Your task to perform on an android device: set the timer Image 0: 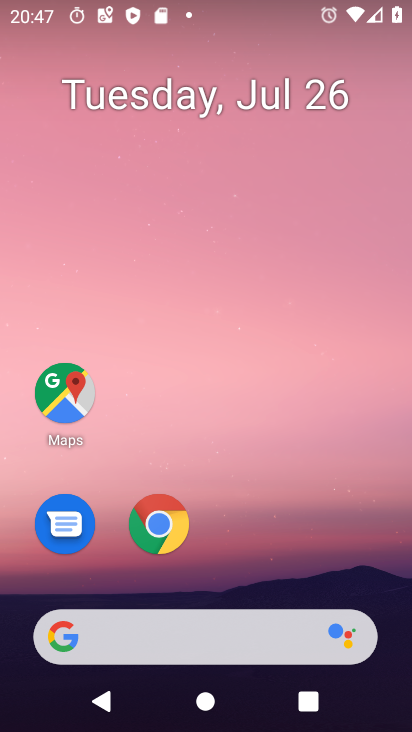
Step 0: drag from (272, 553) to (274, 34)
Your task to perform on an android device: set the timer Image 1: 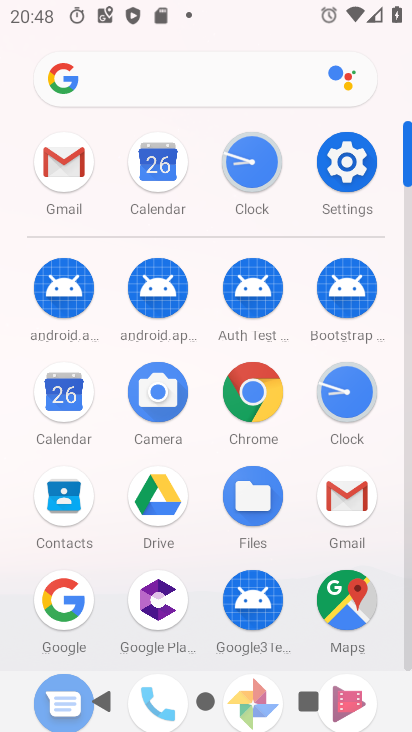
Step 1: click (270, 157)
Your task to perform on an android device: set the timer Image 2: 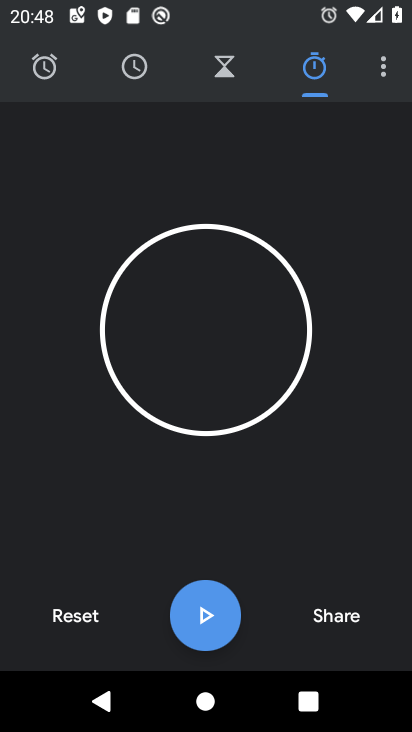
Step 2: click (219, 66)
Your task to perform on an android device: set the timer Image 3: 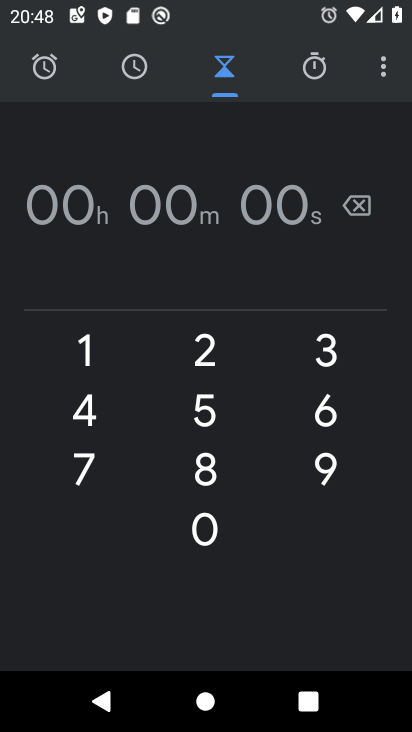
Step 3: click (85, 340)
Your task to perform on an android device: set the timer Image 4: 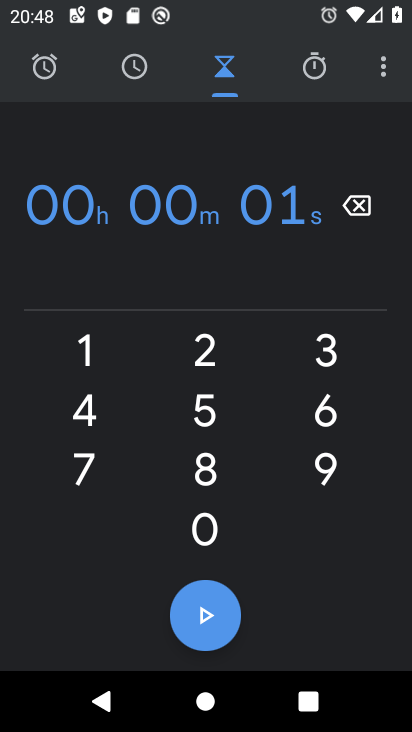
Step 4: task complete